Your task to perform on an android device: open app "Nova Launcher" (install if not already installed) and go to login screen Image 0: 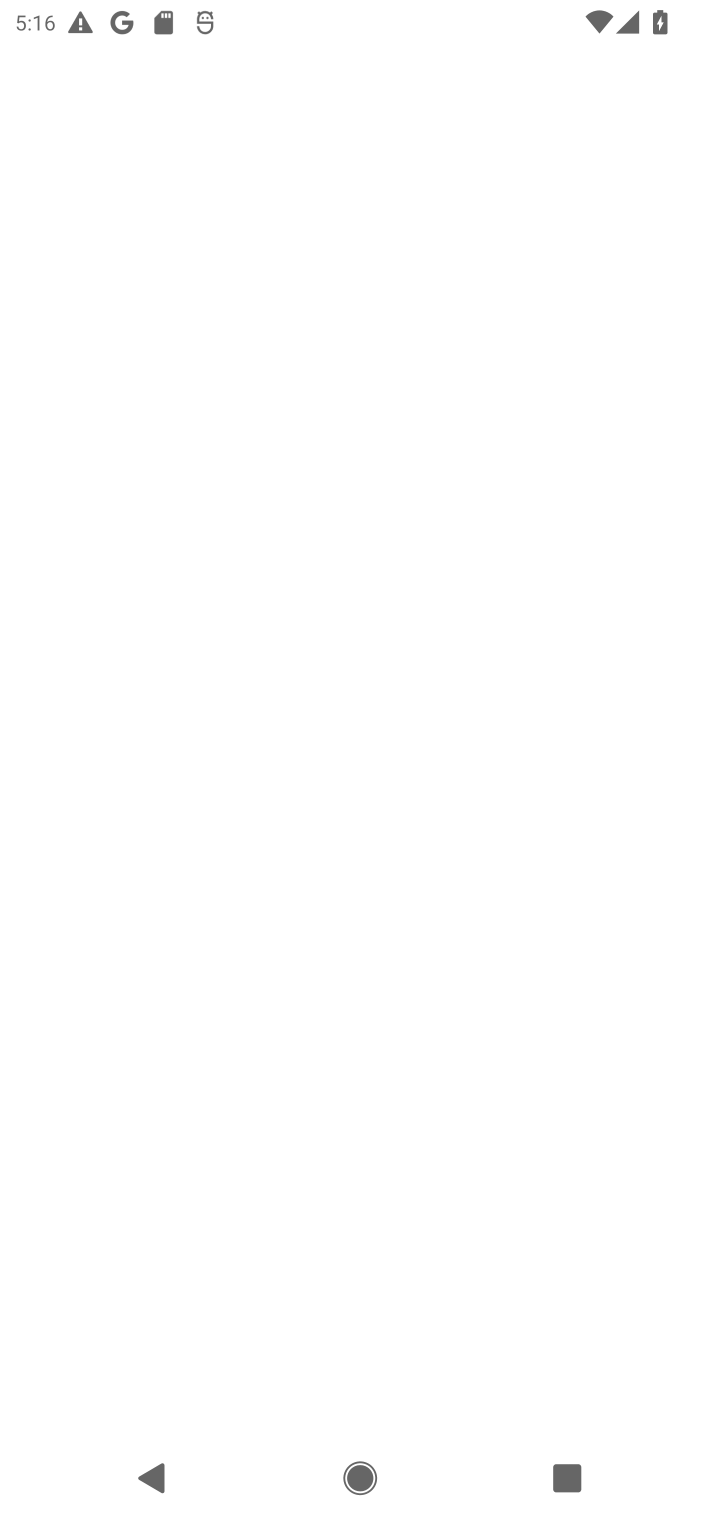
Step 0: press home button
Your task to perform on an android device: open app "Nova Launcher" (install if not already installed) and go to login screen Image 1: 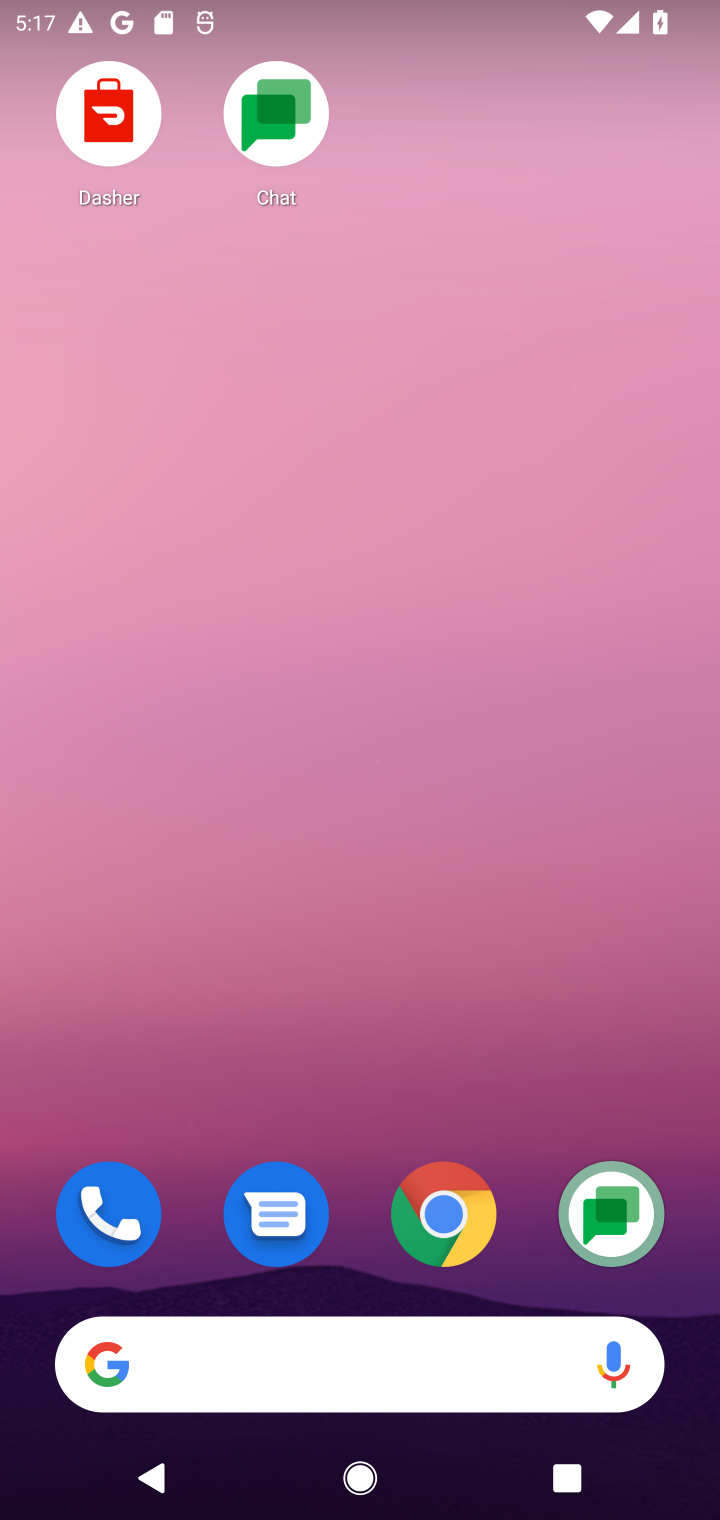
Step 1: drag from (463, 1230) to (513, 386)
Your task to perform on an android device: open app "Nova Launcher" (install if not already installed) and go to login screen Image 2: 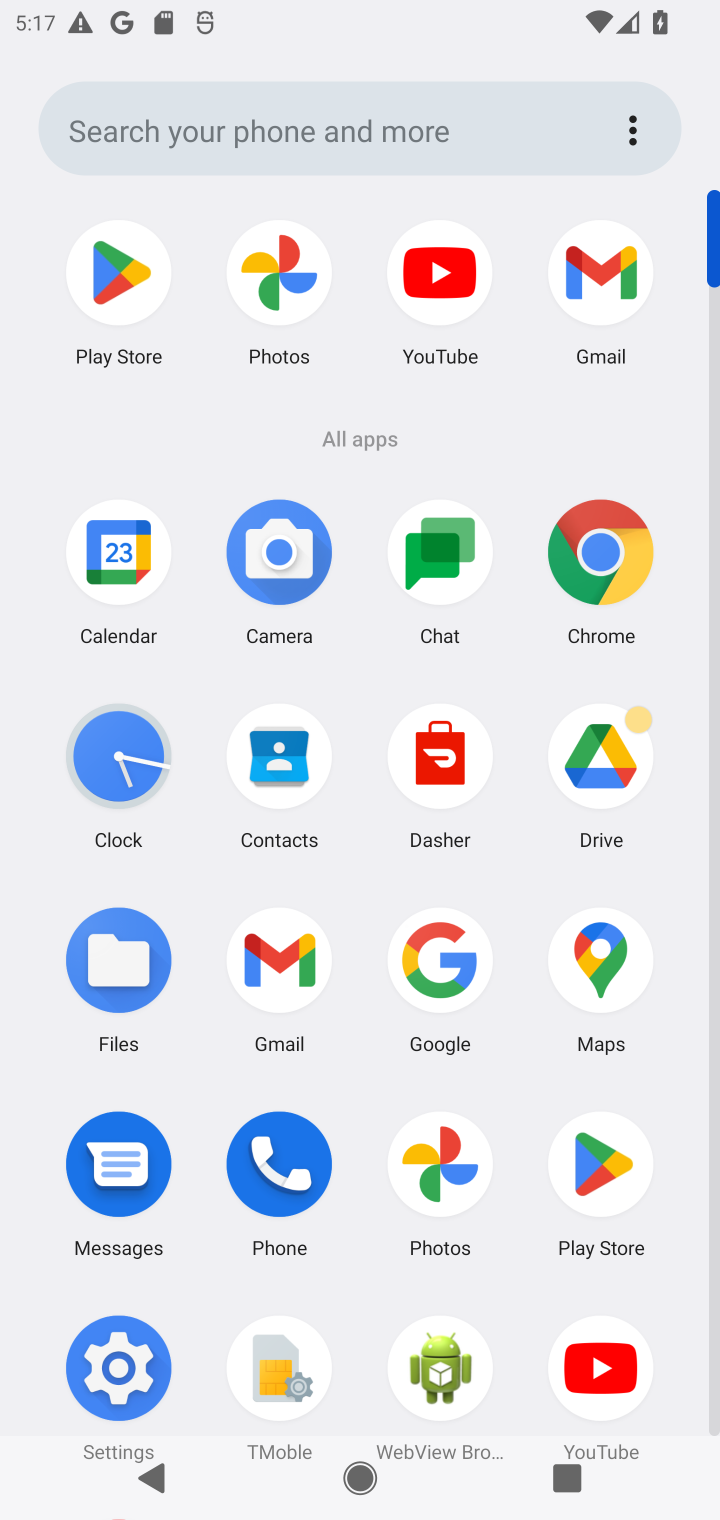
Step 2: click (616, 1169)
Your task to perform on an android device: open app "Nova Launcher" (install if not already installed) and go to login screen Image 3: 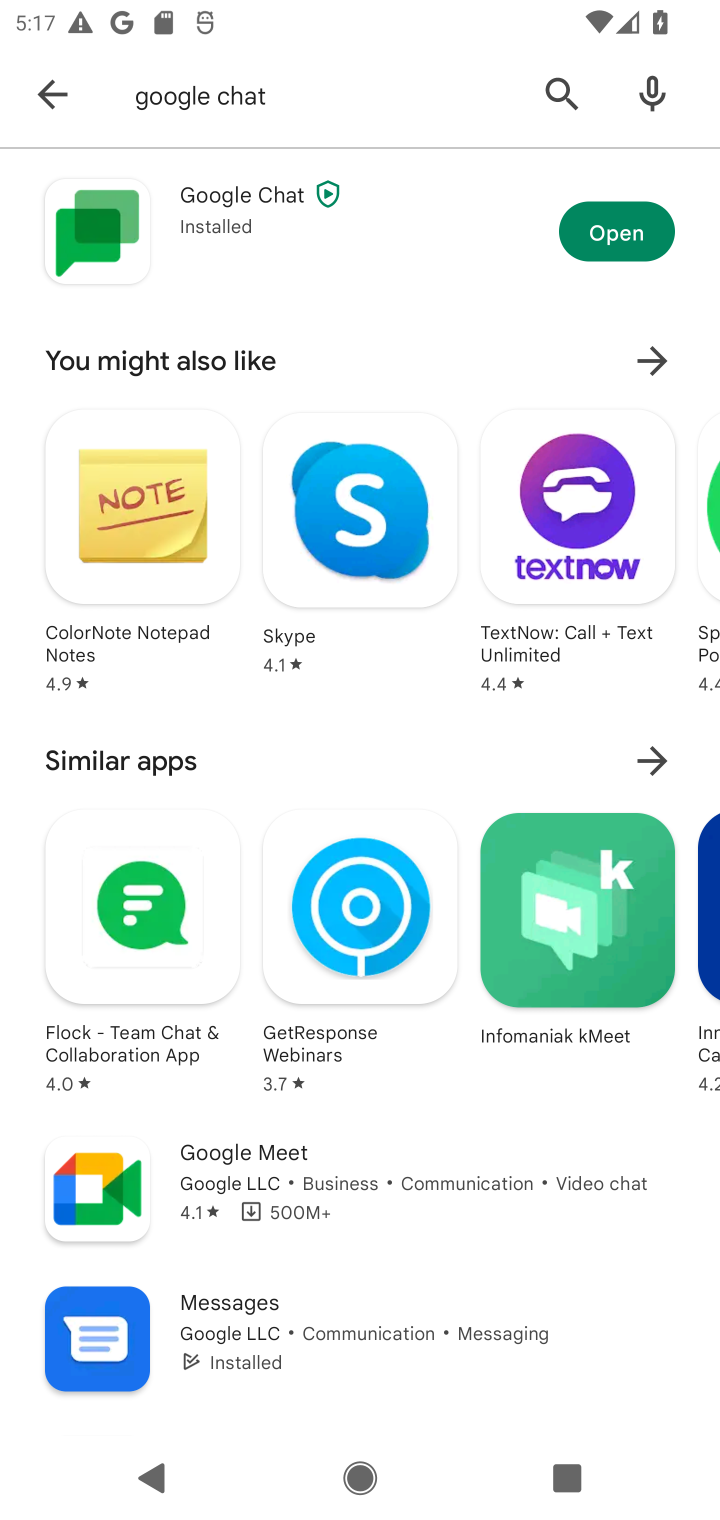
Step 3: drag from (550, 90) to (620, 90)
Your task to perform on an android device: open app "Nova Launcher" (install if not already installed) and go to login screen Image 4: 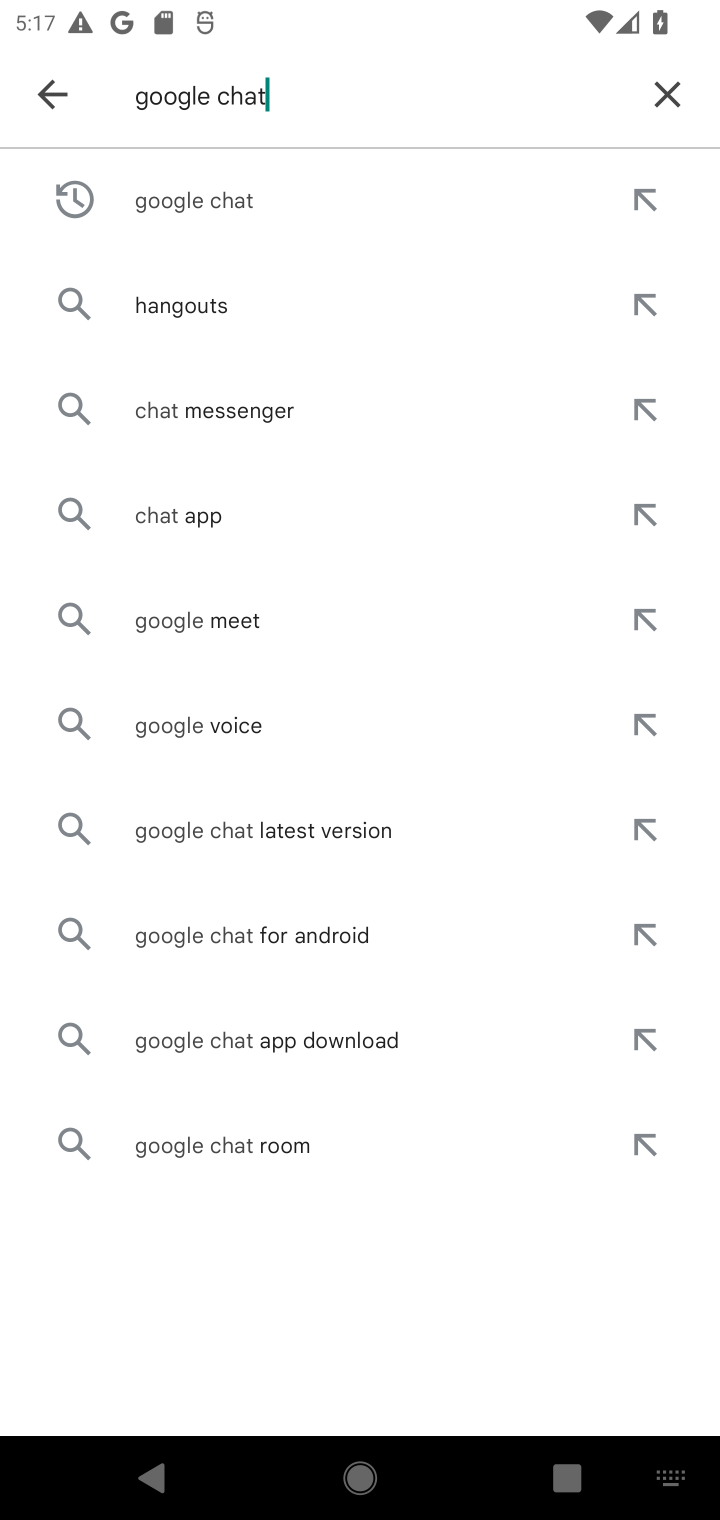
Step 4: click (652, 104)
Your task to perform on an android device: open app "Nova Launcher" (install if not already installed) and go to login screen Image 5: 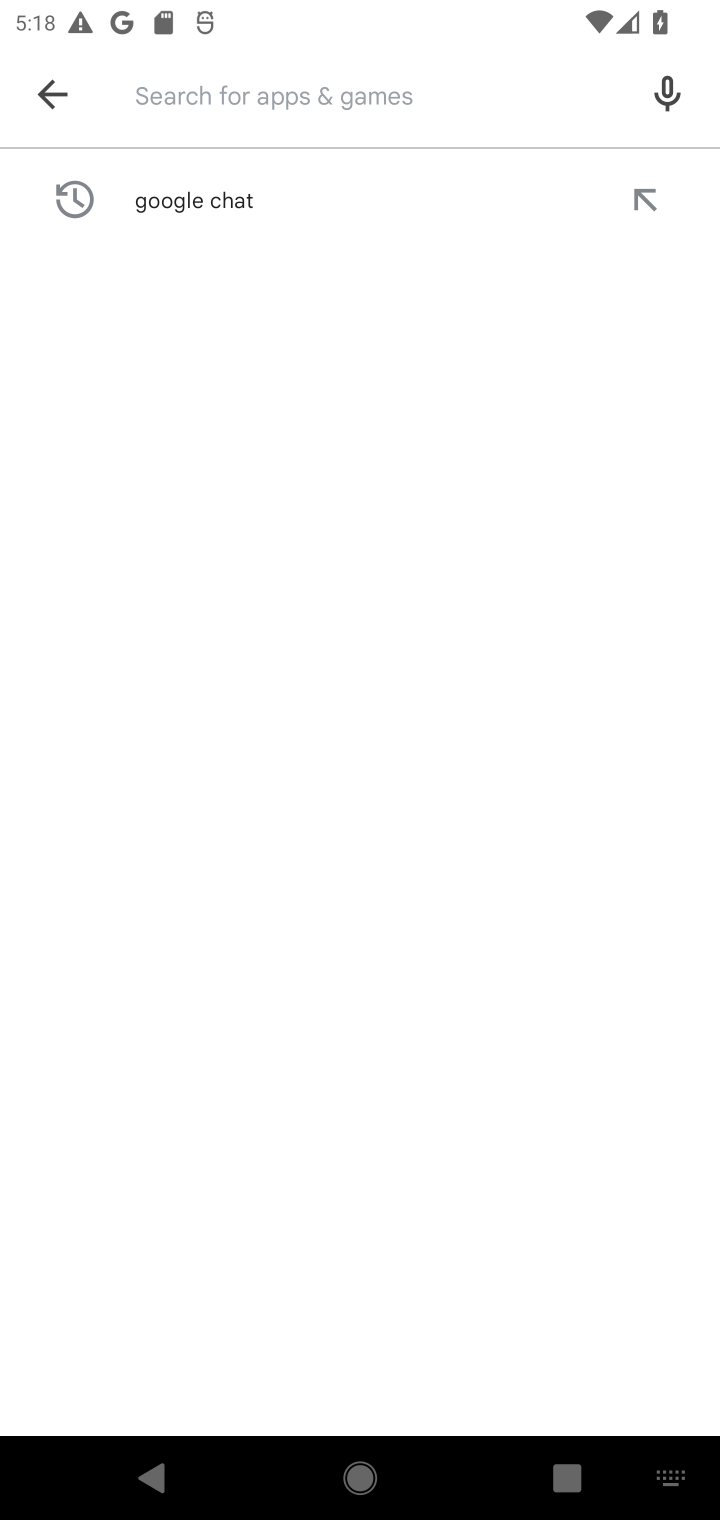
Step 5: type "Nova Launcher"
Your task to perform on an android device: open app "Nova Launcher" (install if not already installed) and go to login screen Image 6: 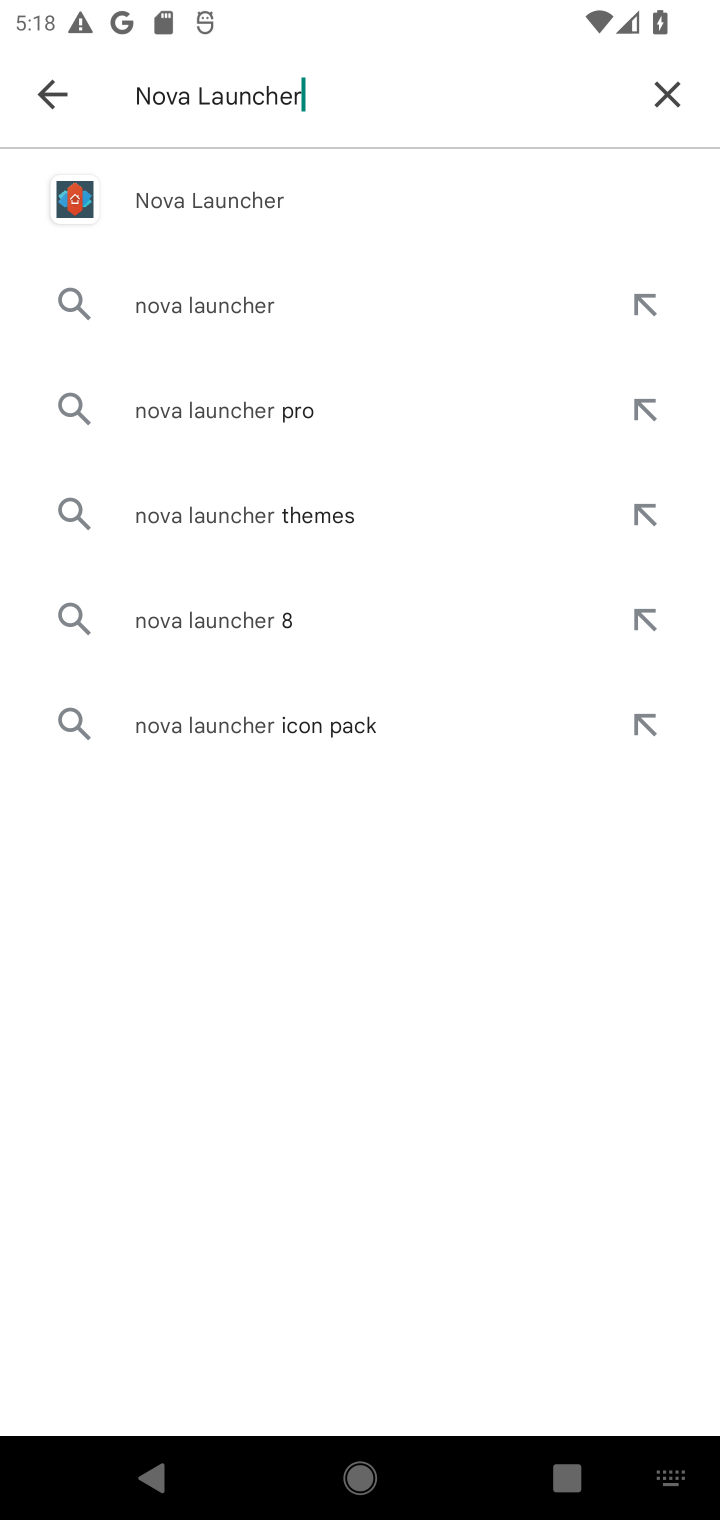
Step 6: click (255, 191)
Your task to perform on an android device: open app "Nova Launcher" (install if not already installed) and go to login screen Image 7: 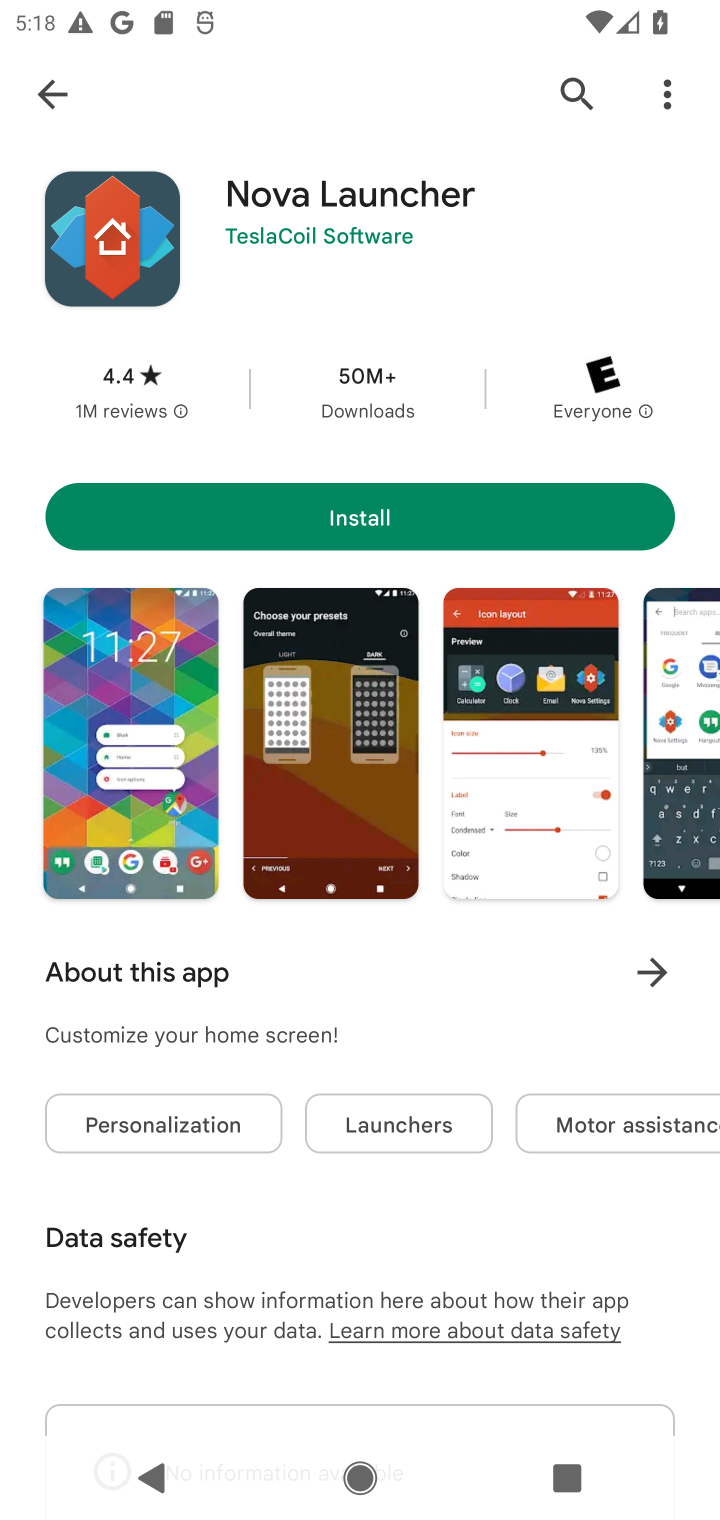
Step 7: click (368, 515)
Your task to perform on an android device: open app "Nova Launcher" (install if not already installed) and go to login screen Image 8: 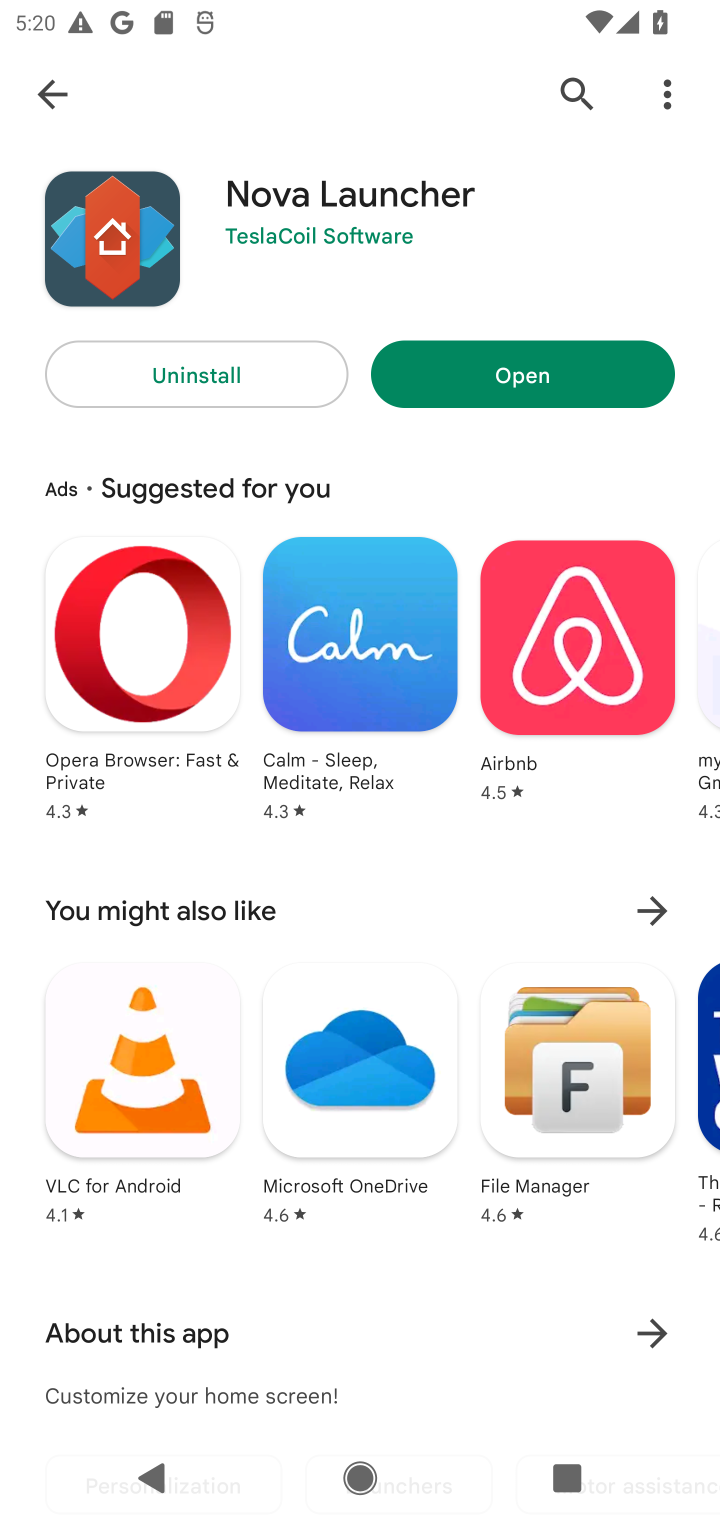
Step 8: click (549, 374)
Your task to perform on an android device: open app "Nova Launcher" (install if not already installed) and go to login screen Image 9: 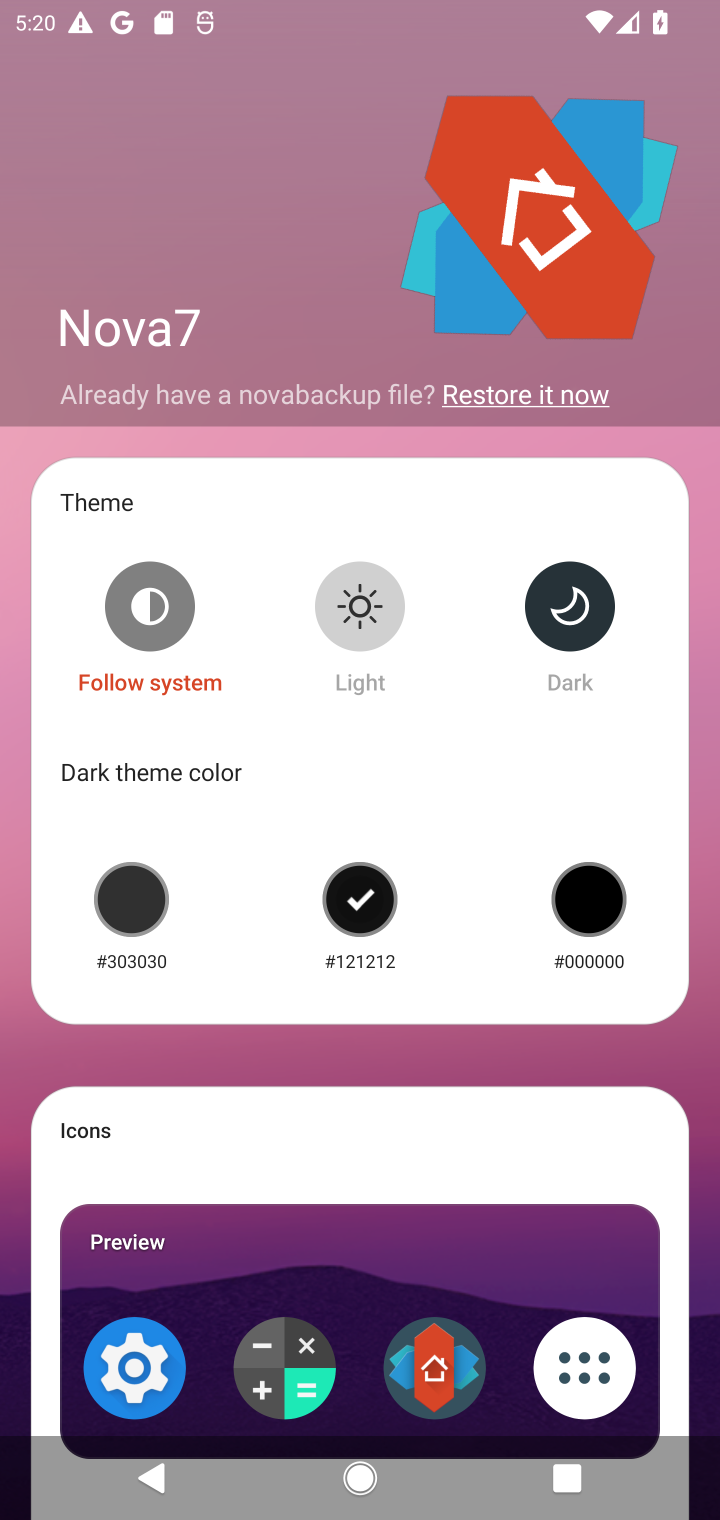
Step 9: task complete